Your task to perform on an android device: turn on location history Image 0: 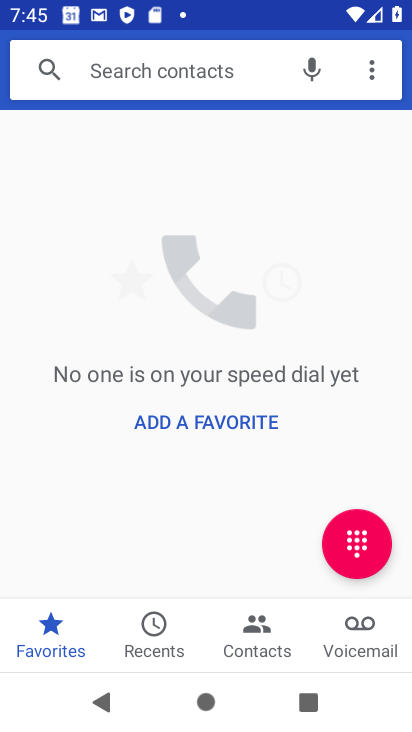
Step 0: press home button
Your task to perform on an android device: turn on location history Image 1: 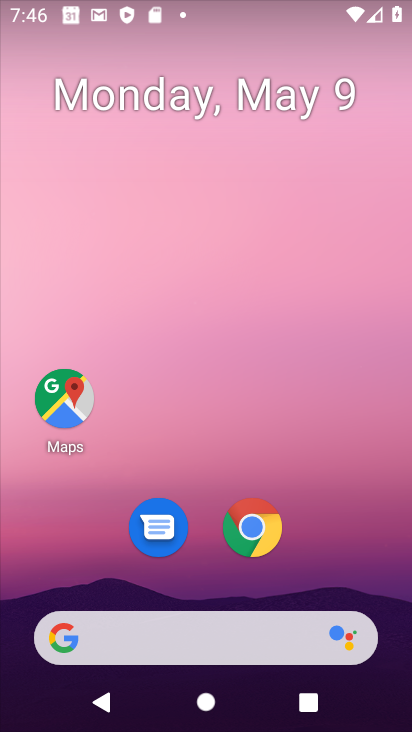
Step 1: drag from (155, 636) to (208, 285)
Your task to perform on an android device: turn on location history Image 2: 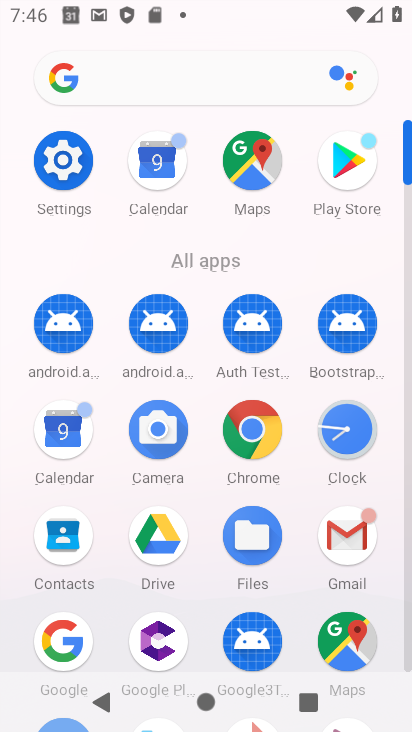
Step 2: click (404, 475)
Your task to perform on an android device: turn on location history Image 3: 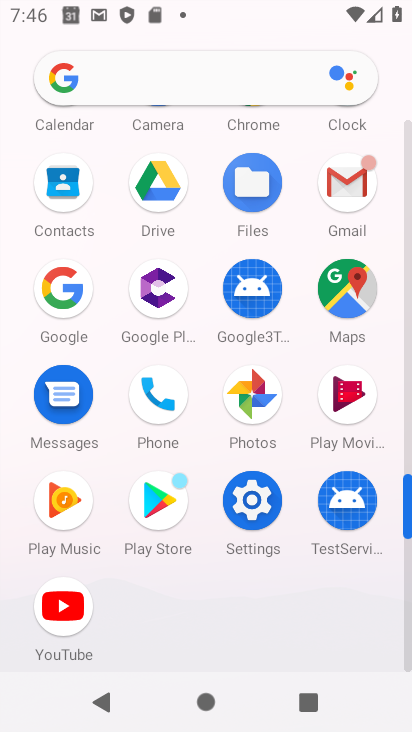
Step 3: click (269, 511)
Your task to perform on an android device: turn on location history Image 4: 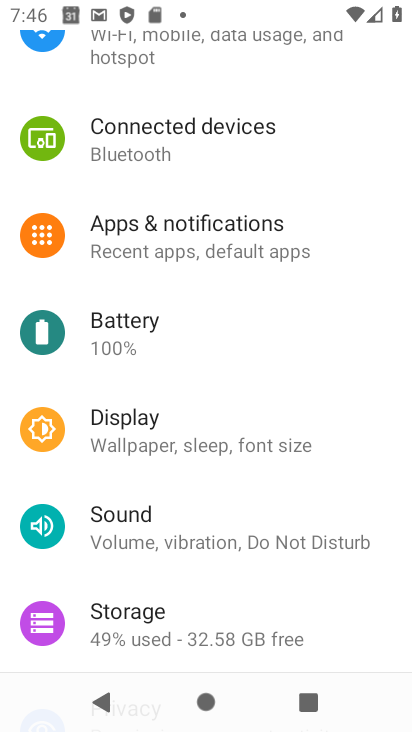
Step 4: drag from (184, 561) to (207, 295)
Your task to perform on an android device: turn on location history Image 5: 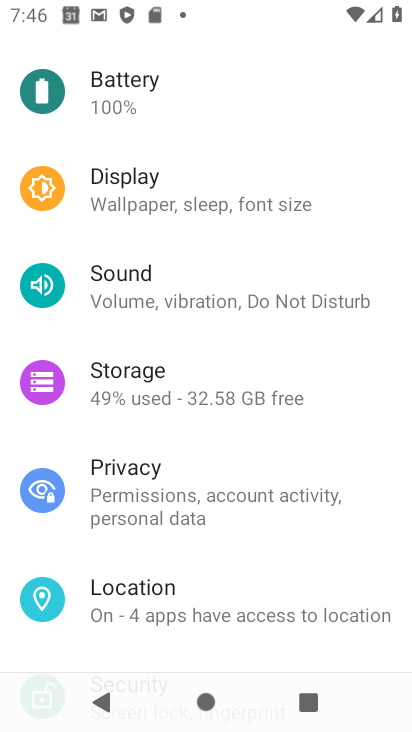
Step 5: click (210, 611)
Your task to perform on an android device: turn on location history Image 6: 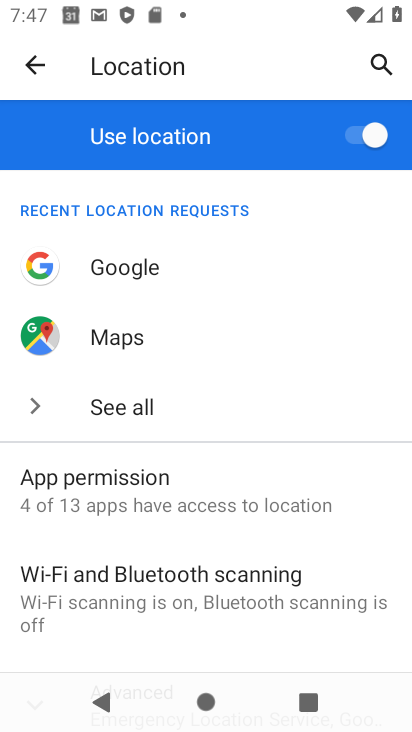
Step 6: drag from (191, 554) to (232, 185)
Your task to perform on an android device: turn on location history Image 7: 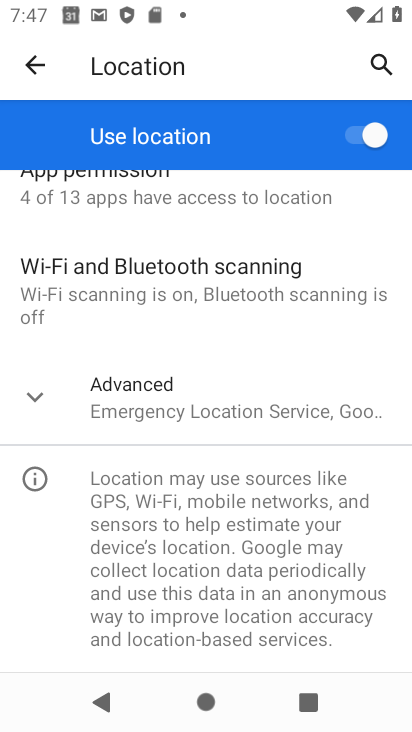
Step 7: click (225, 392)
Your task to perform on an android device: turn on location history Image 8: 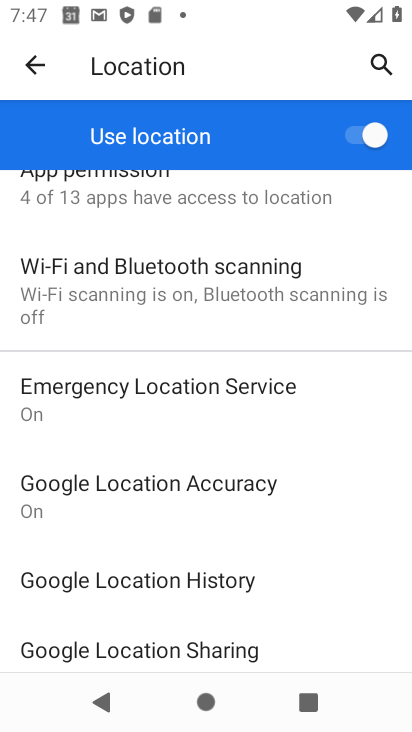
Step 8: drag from (210, 587) to (210, 523)
Your task to perform on an android device: turn on location history Image 9: 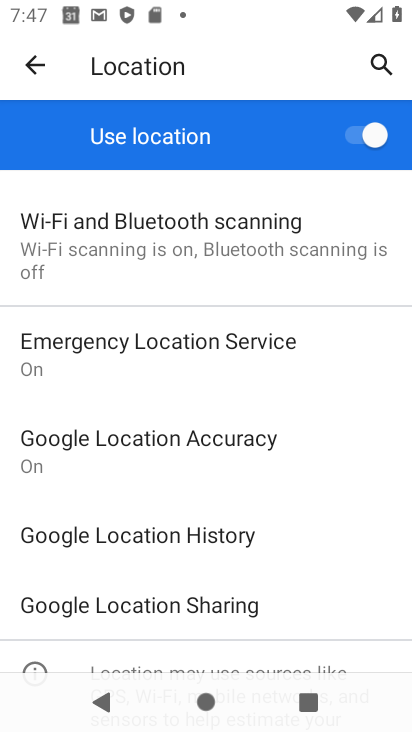
Step 9: click (193, 554)
Your task to perform on an android device: turn on location history Image 10: 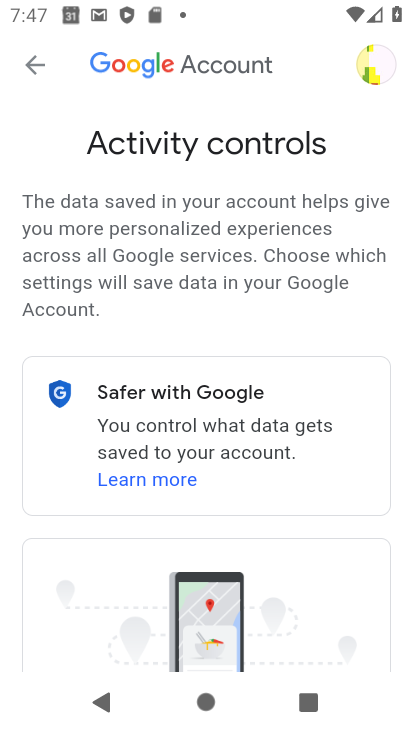
Step 10: task complete